Your task to perform on an android device: Search for usb-c to usb-b on bestbuy.com, select the first entry, and add it to the cart. Image 0: 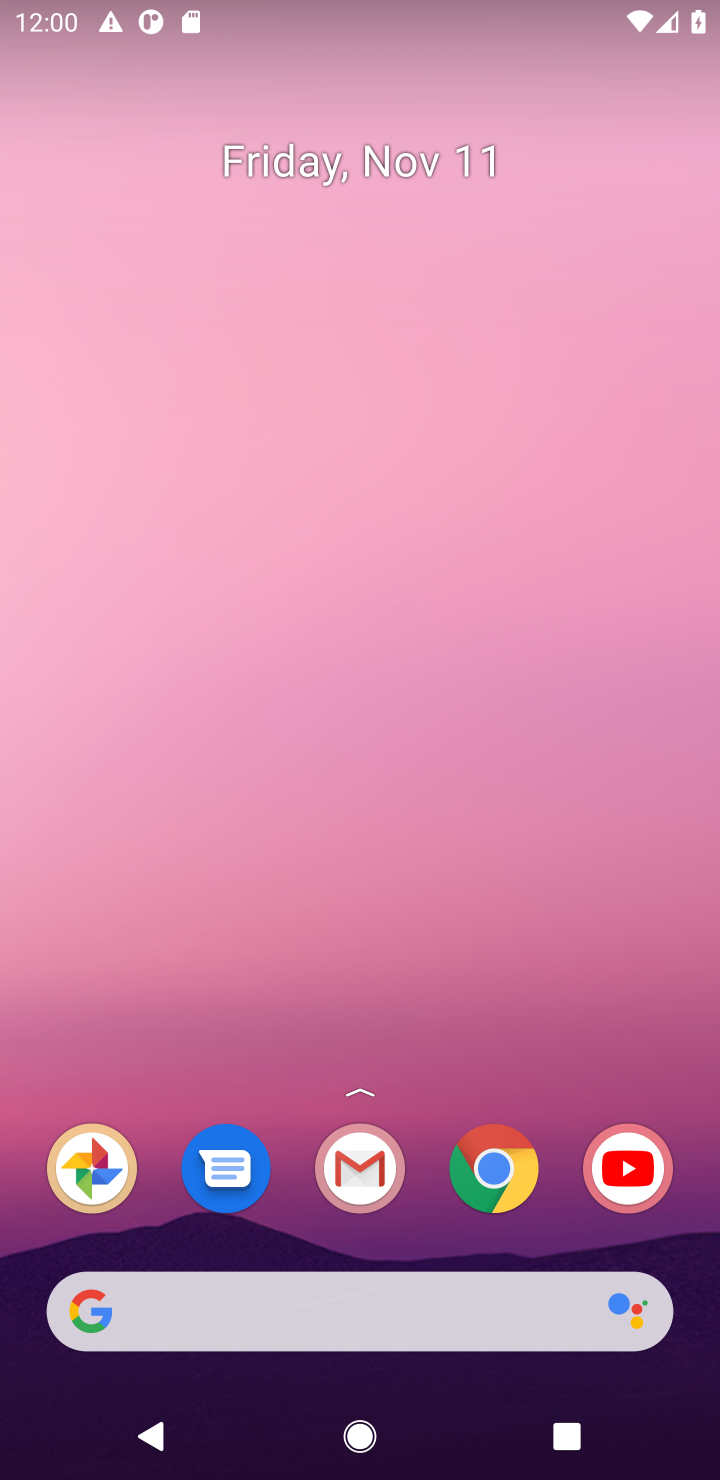
Step 0: click (493, 1170)
Your task to perform on an android device: Search for usb-c to usb-b on bestbuy.com, select the first entry, and add it to the cart. Image 1: 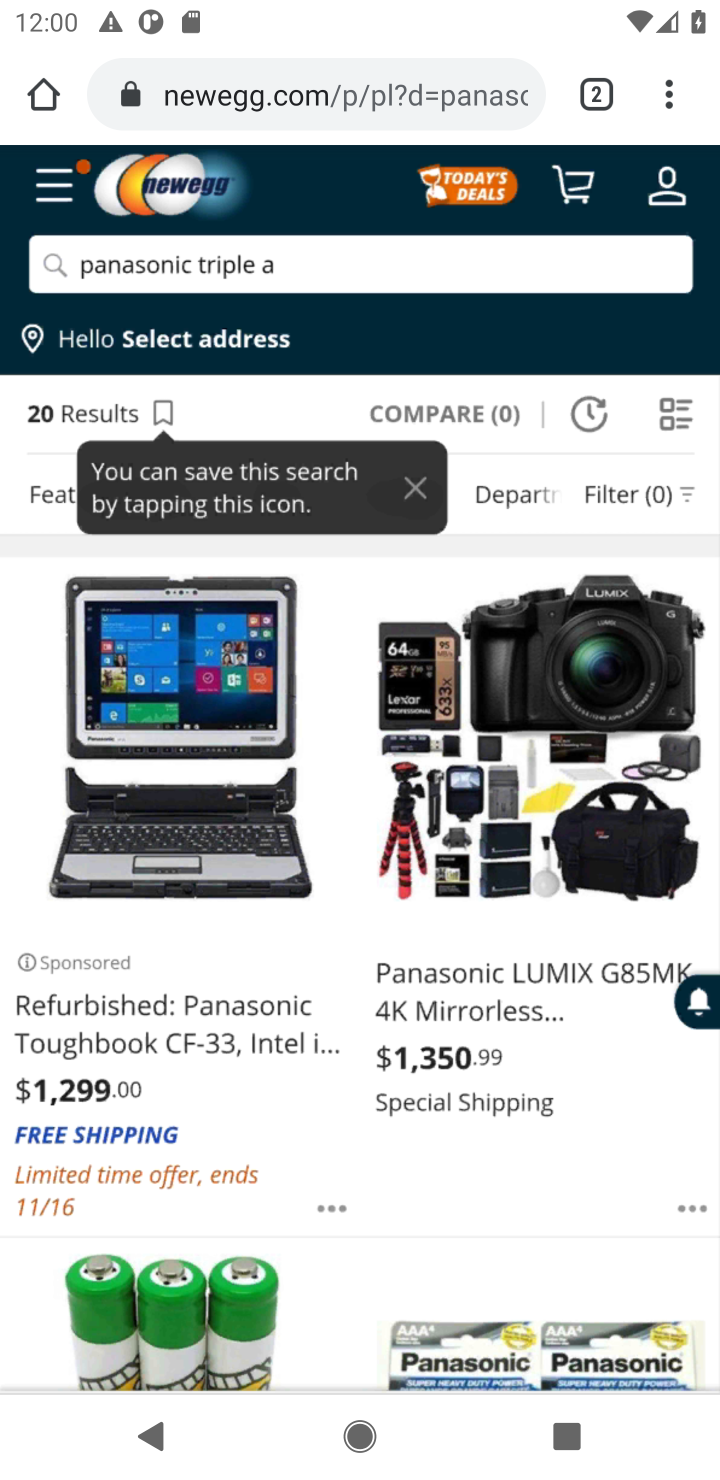
Step 1: click (313, 94)
Your task to perform on an android device: Search for usb-c to usb-b on bestbuy.com, select the first entry, and add it to the cart. Image 2: 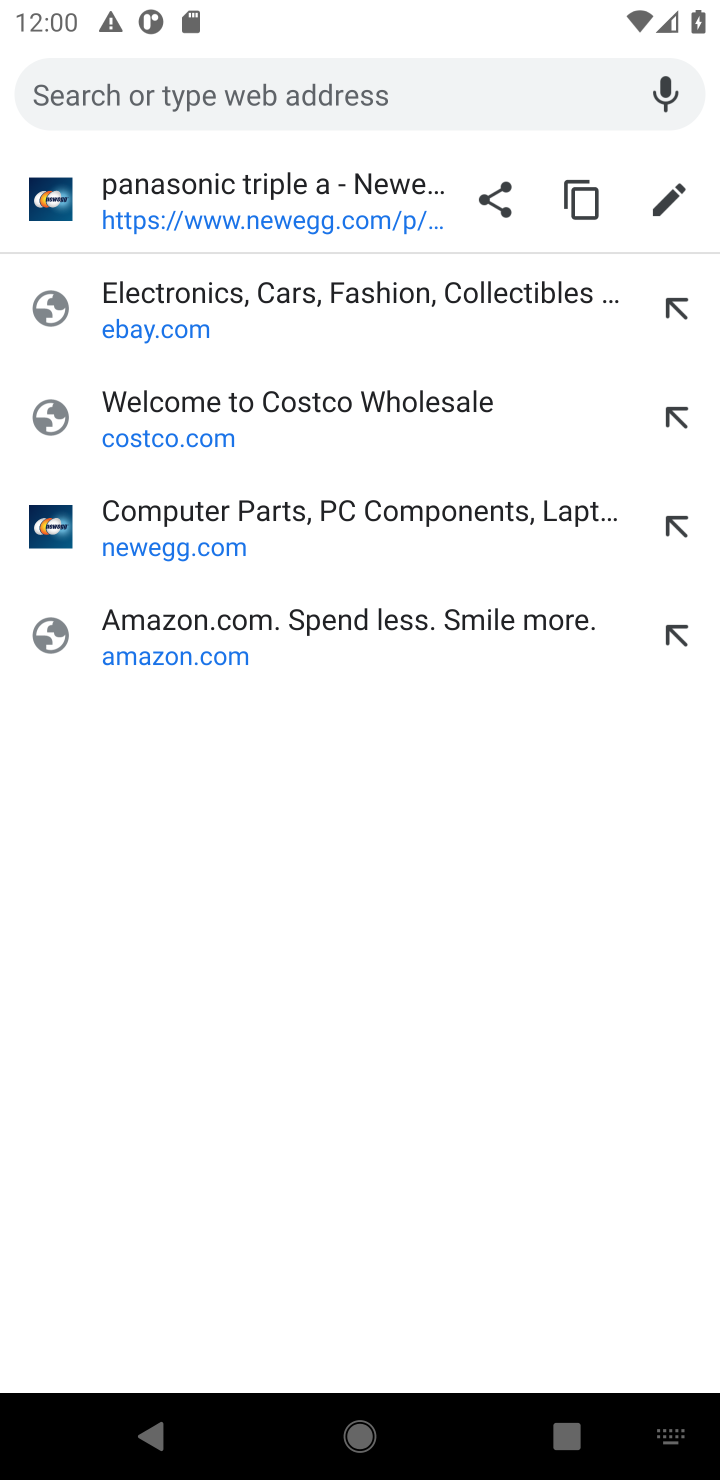
Step 2: type "bestbuy.com"
Your task to perform on an android device: Search for usb-c to usb-b on bestbuy.com, select the first entry, and add it to the cart. Image 3: 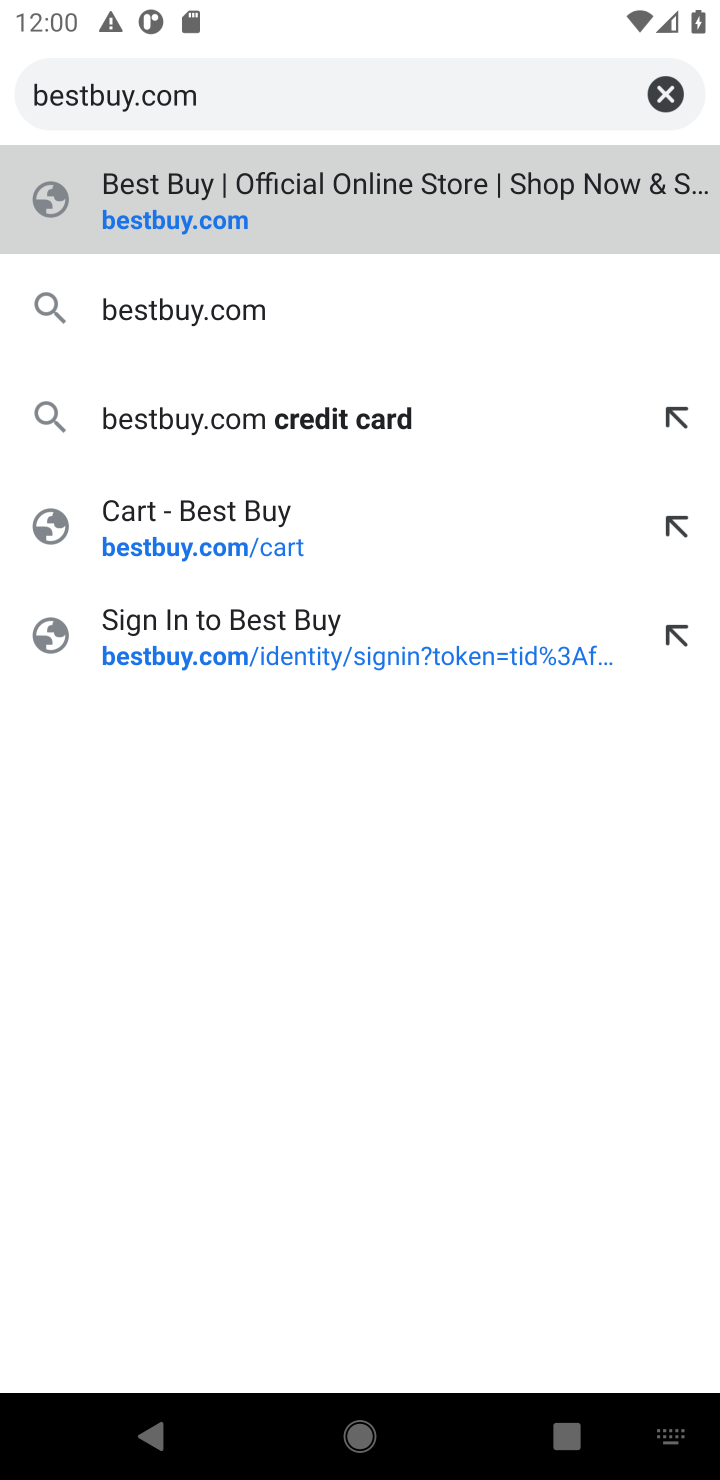
Step 3: click (163, 227)
Your task to perform on an android device: Search for usb-c to usb-b on bestbuy.com, select the first entry, and add it to the cart. Image 4: 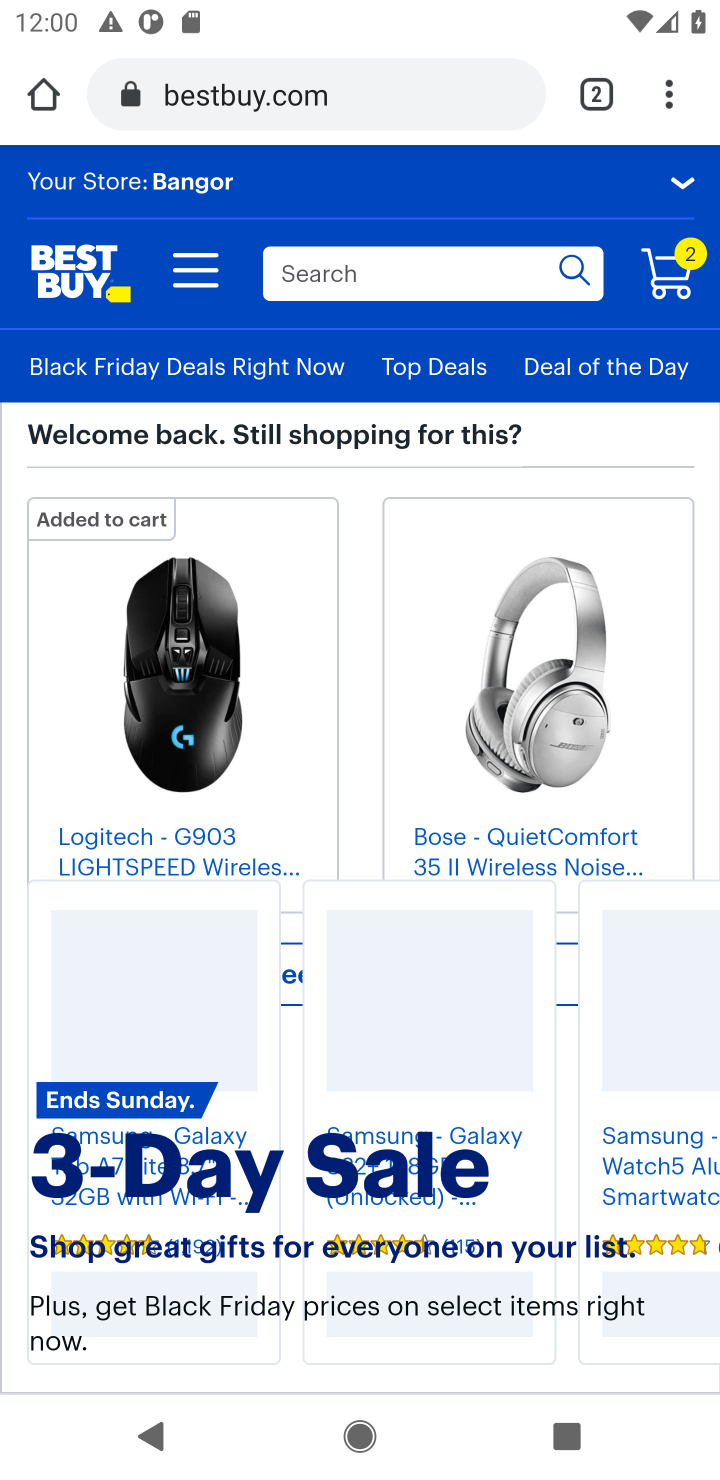
Step 4: click (313, 266)
Your task to perform on an android device: Search for usb-c to usb-b on bestbuy.com, select the first entry, and add it to the cart. Image 5: 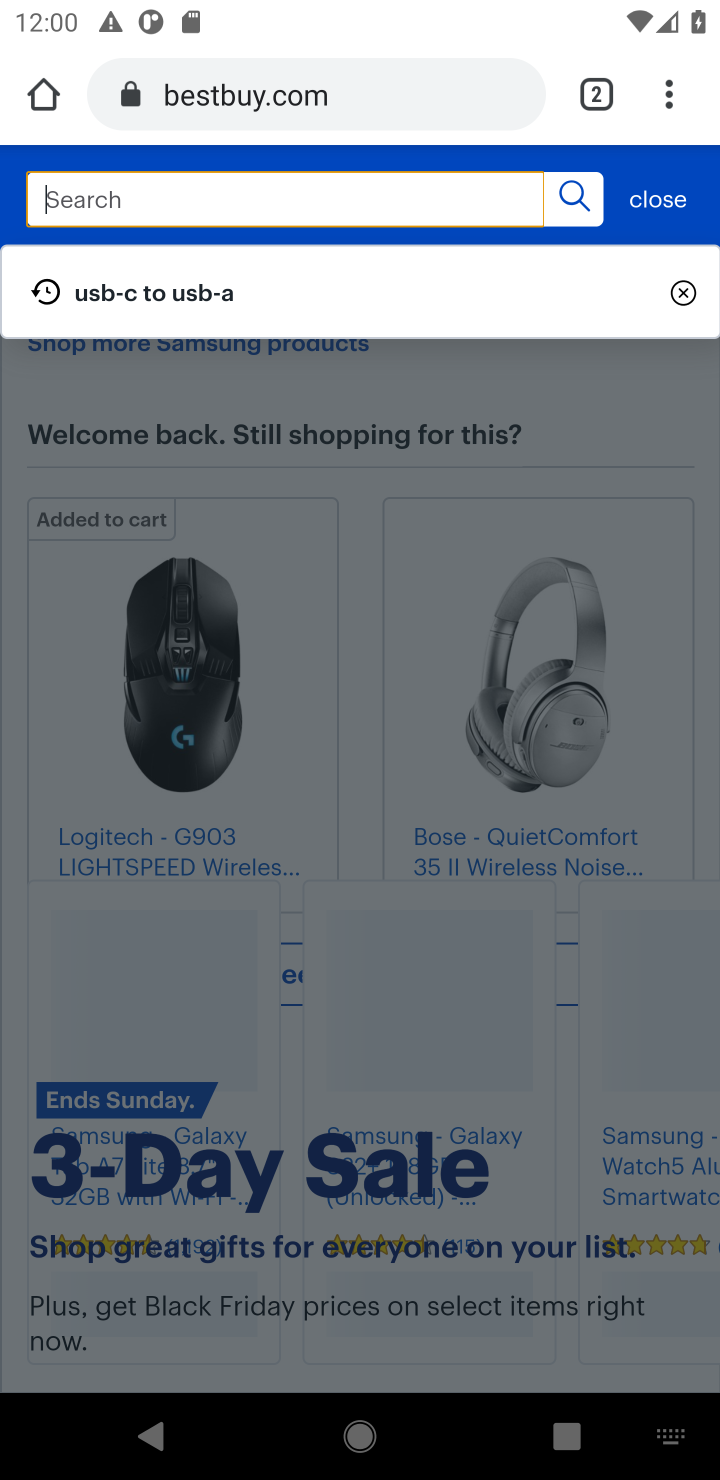
Step 5: type "usb-c to usb-b"
Your task to perform on an android device: Search for usb-c to usb-b on bestbuy.com, select the first entry, and add it to the cart. Image 6: 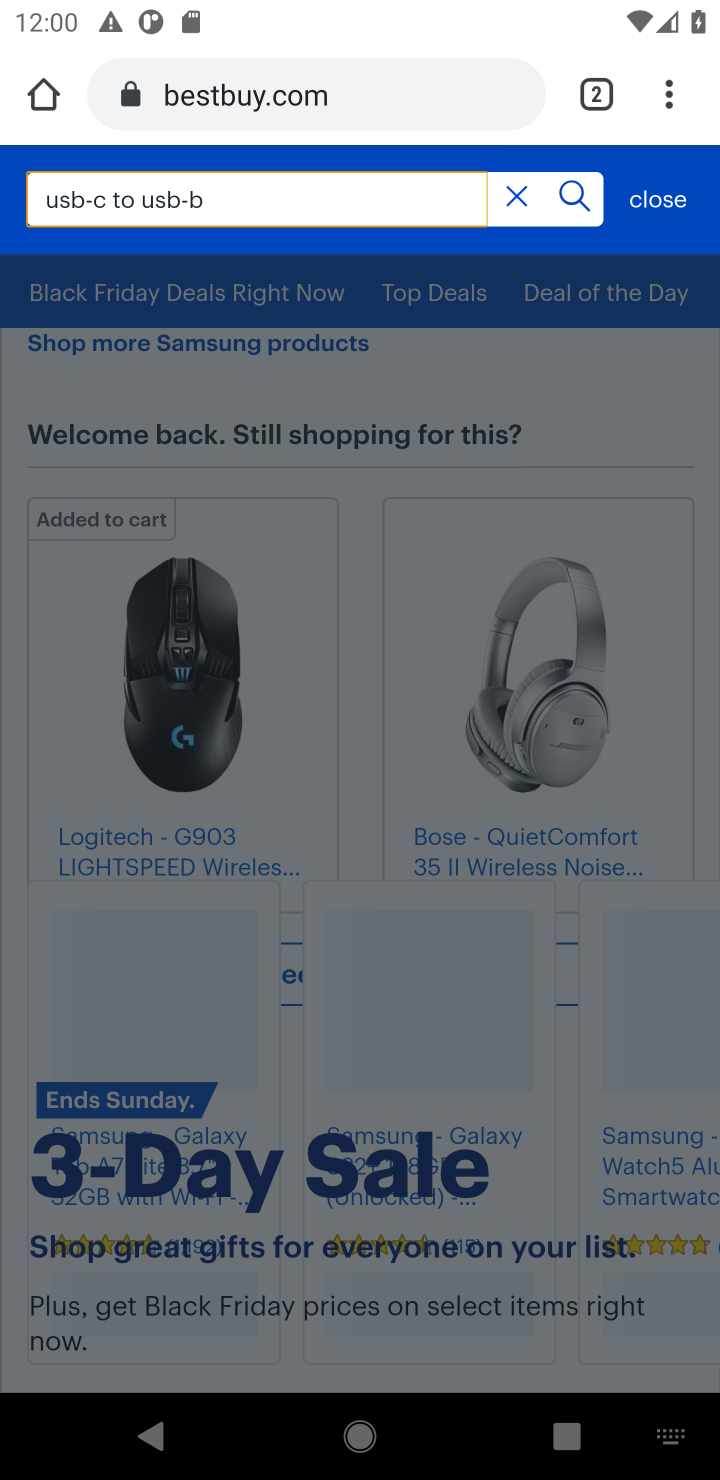
Step 6: click (573, 197)
Your task to perform on an android device: Search for usb-c to usb-b on bestbuy.com, select the first entry, and add it to the cart. Image 7: 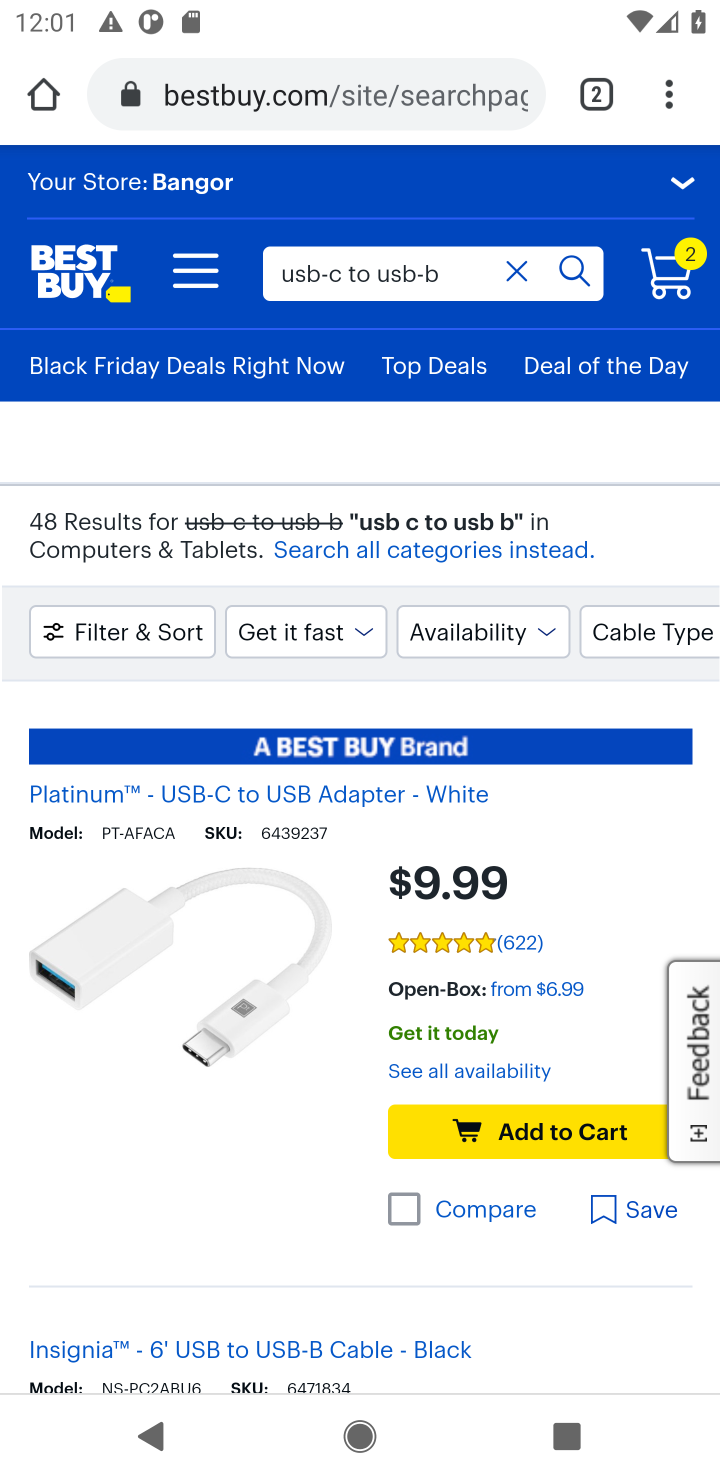
Step 7: task complete